Your task to perform on an android device: Go to calendar. Show me events next week Image 0: 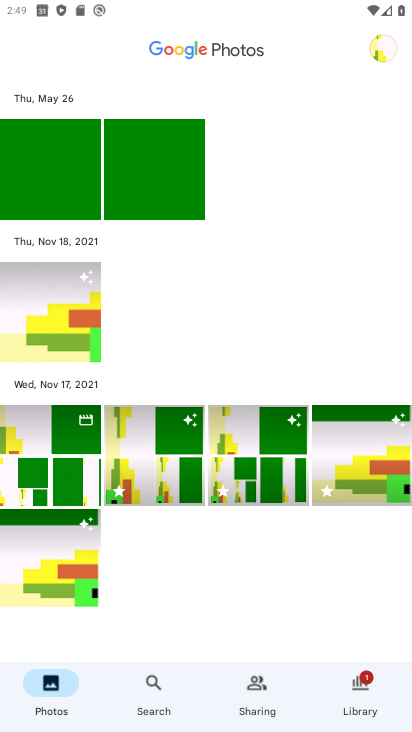
Step 0: press home button
Your task to perform on an android device: Go to calendar. Show me events next week Image 1: 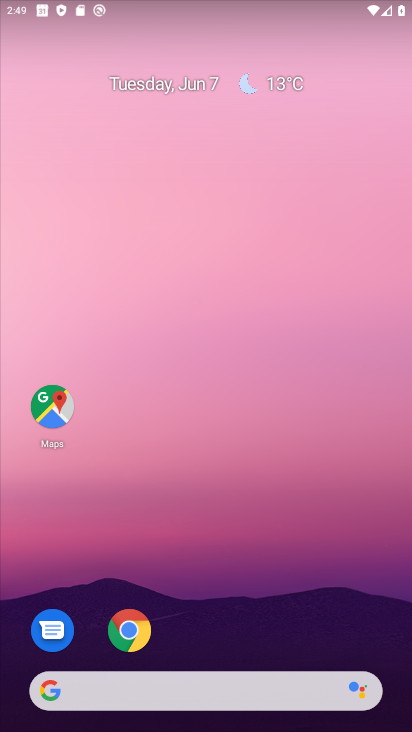
Step 1: drag from (232, 682) to (243, 196)
Your task to perform on an android device: Go to calendar. Show me events next week Image 2: 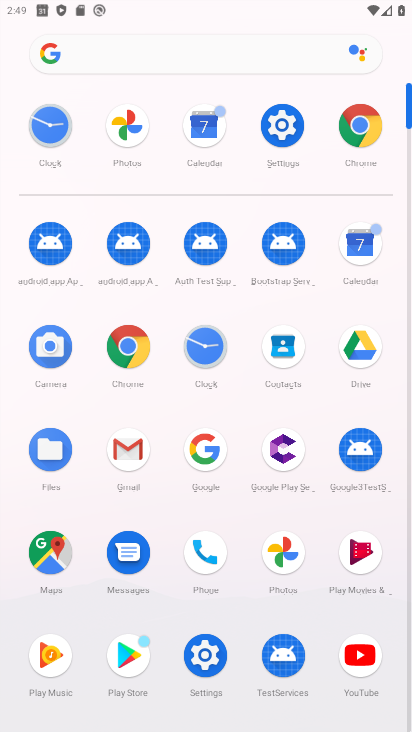
Step 2: click (359, 241)
Your task to perform on an android device: Go to calendar. Show me events next week Image 3: 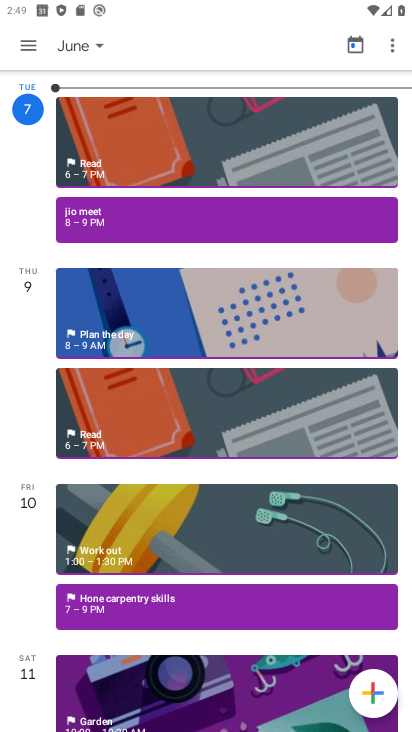
Step 3: click (21, 40)
Your task to perform on an android device: Go to calendar. Show me events next week Image 4: 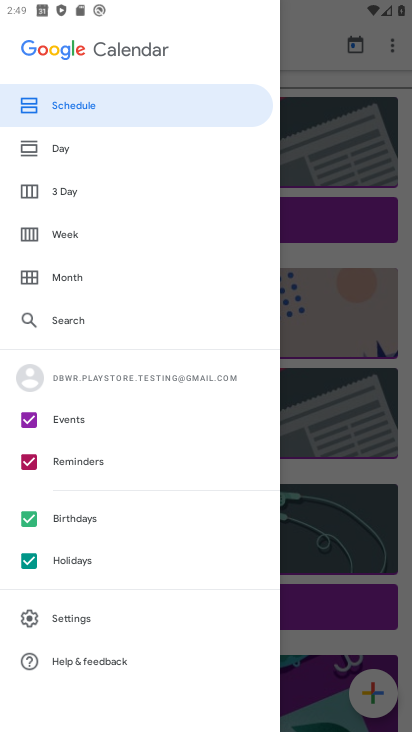
Step 4: click (73, 245)
Your task to perform on an android device: Go to calendar. Show me events next week Image 5: 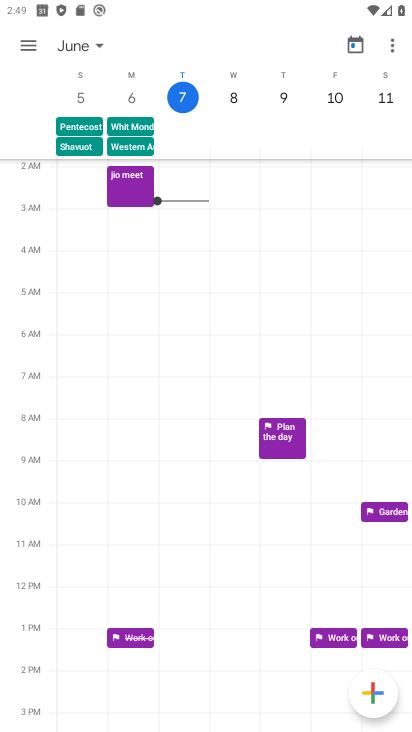
Step 5: task complete